Your task to perform on an android device: turn on location history Image 0: 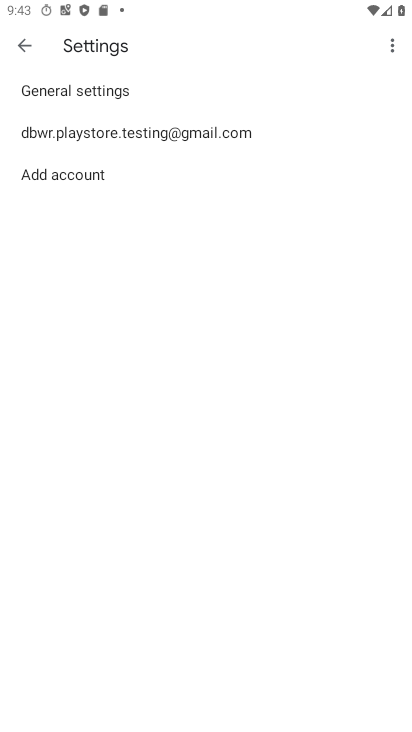
Step 0: click (121, 636)
Your task to perform on an android device: turn on location history Image 1: 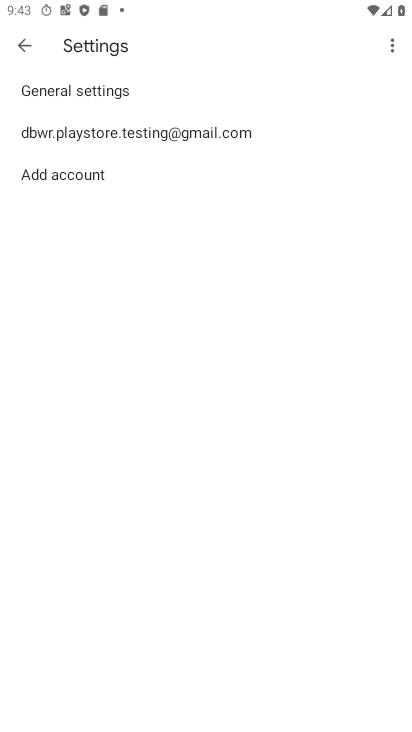
Step 1: press home button
Your task to perform on an android device: turn on location history Image 2: 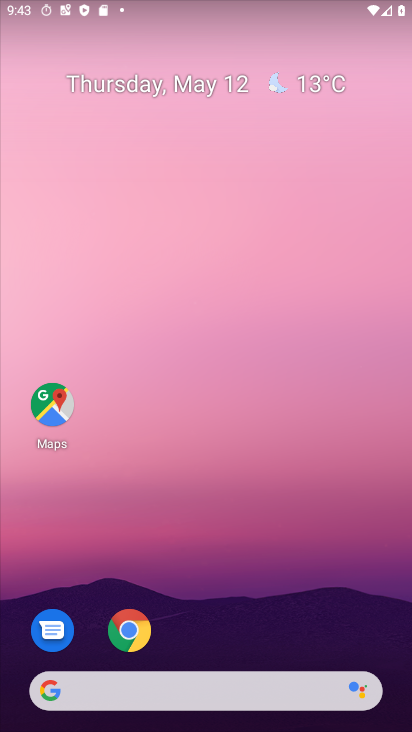
Step 2: drag from (221, 681) to (183, 75)
Your task to perform on an android device: turn on location history Image 3: 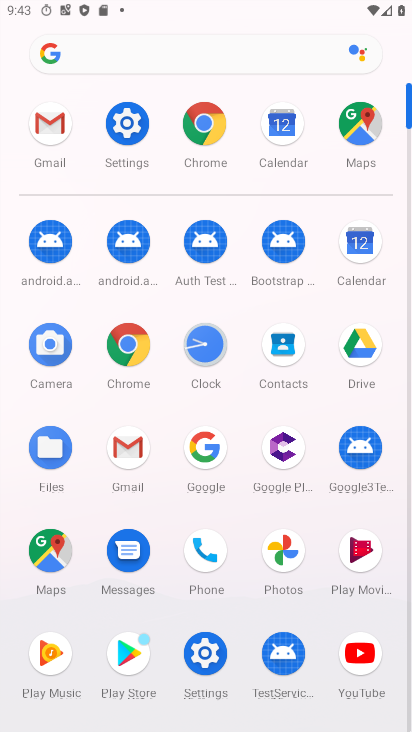
Step 3: click (205, 661)
Your task to perform on an android device: turn on location history Image 4: 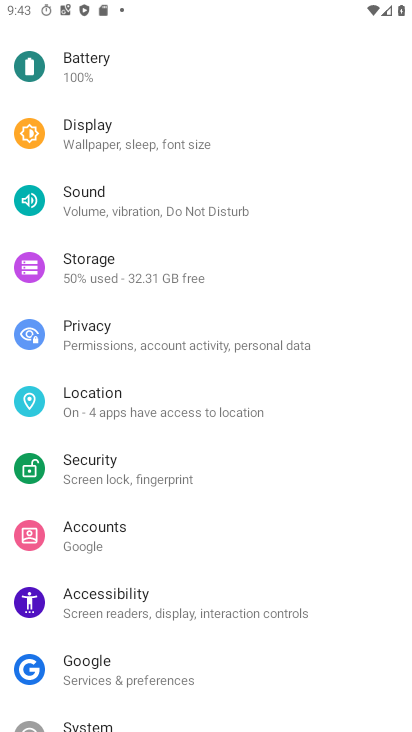
Step 4: click (114, 388)
Your task to perform on an android device: turn on location history Image 5: 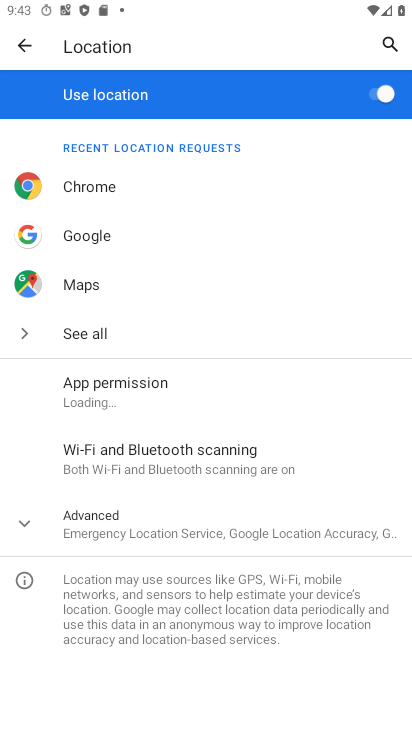
Step 5: click (126, 546)
Your task to perform on an android device: turn on location history Image 6: 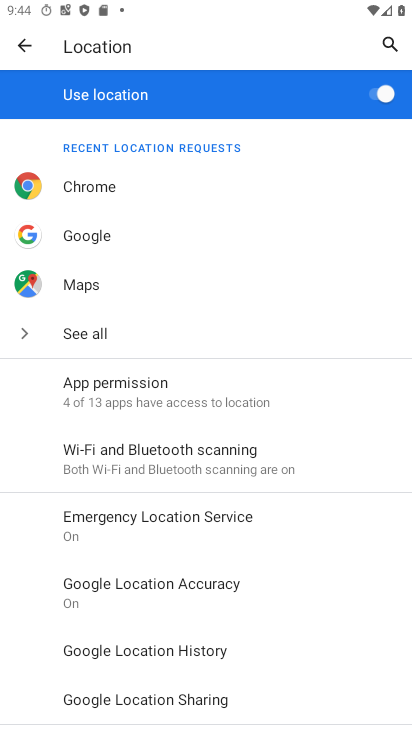
Step 6: click (195, 634)
Your task to perform on an android device: turn on location history Image 7: 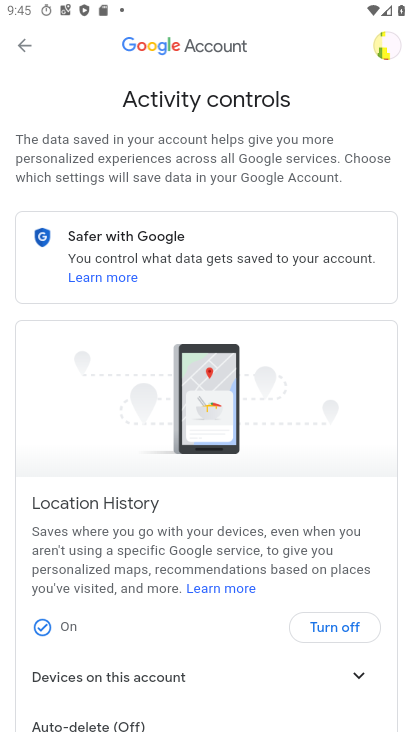
Step 7: task complete